Your task to perform on an android device: open app "Upside-Cash back on gas & food" (install if not already installed) and go to login screen Image 0: 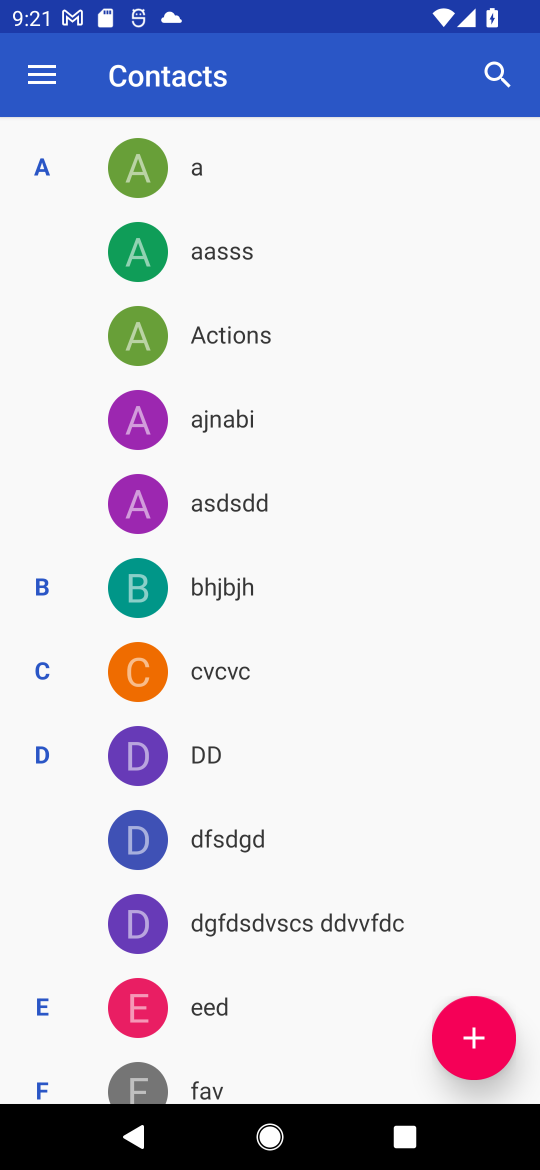
Step 0: press home button
Your task to perform on an android device: open app "Upside-Cash back on gas & food" (install if not already installed) and go to login screen Image 1: 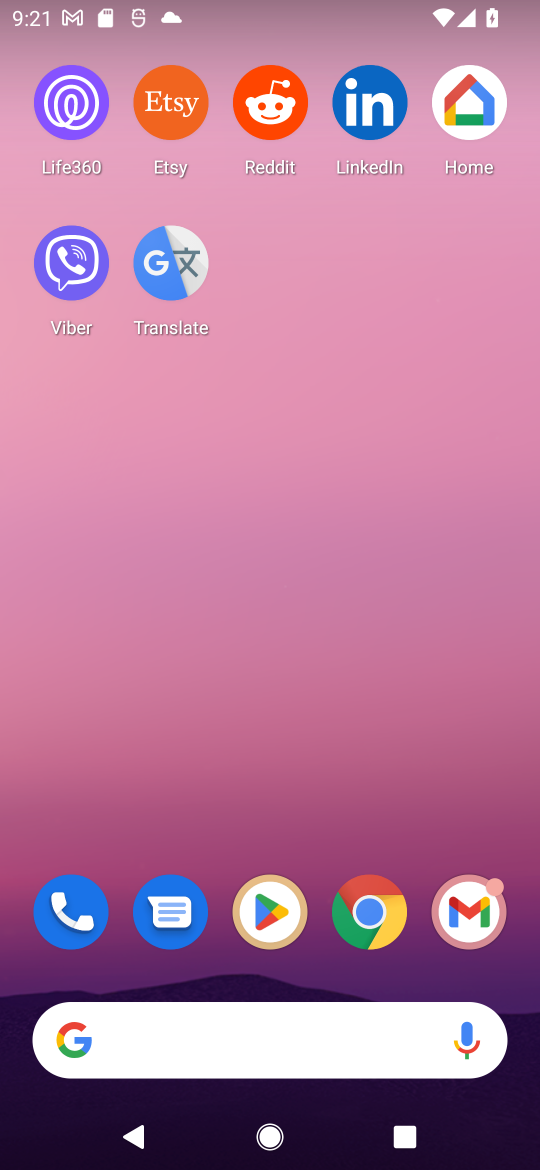
Step 1: drag from (479, 955) to (241, 6)
Your task to perform on an android device: open app "Upside-Cash back on gas & food" (install if not already installed) and go to login screen Image 2: 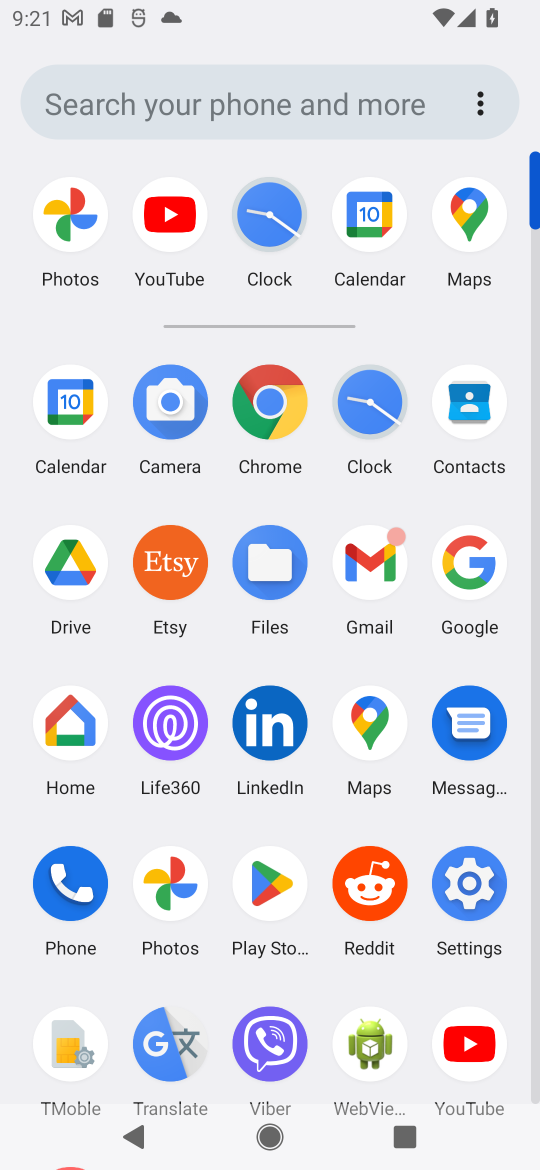
Step 2: click (263, 898)
Your task to perform on an android device: open app "Upside-Cash back on gas & food" (install if not already installed) and go to login screen Image 3: 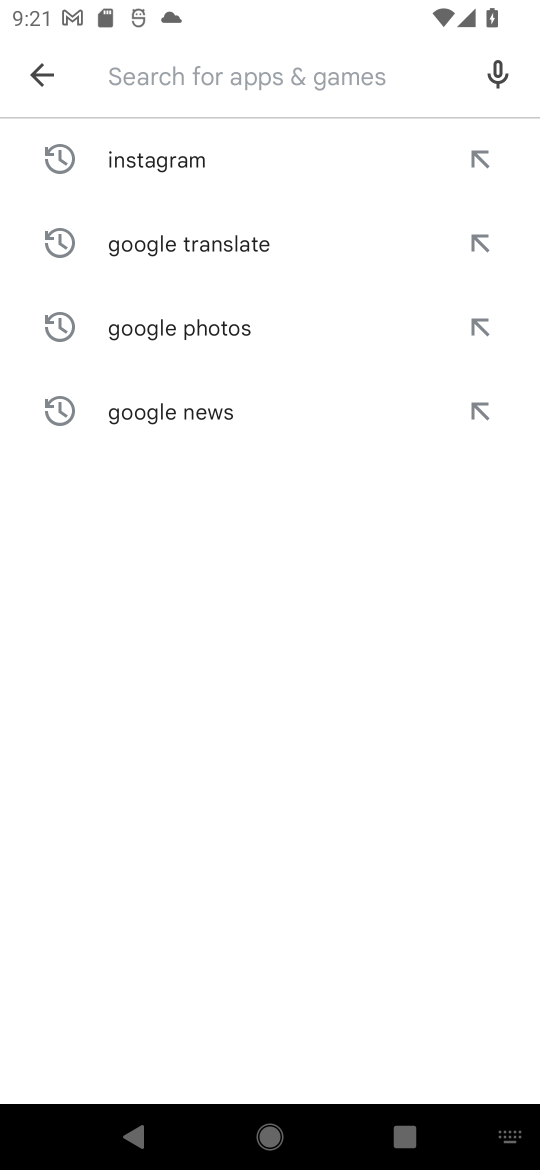
Step 3: type "Upside-Cash back on gas & food"
Your task to perform on an android device: open app "Upside-Cash back on gas & food" (install if not already installed) and go to login screen Image 4: 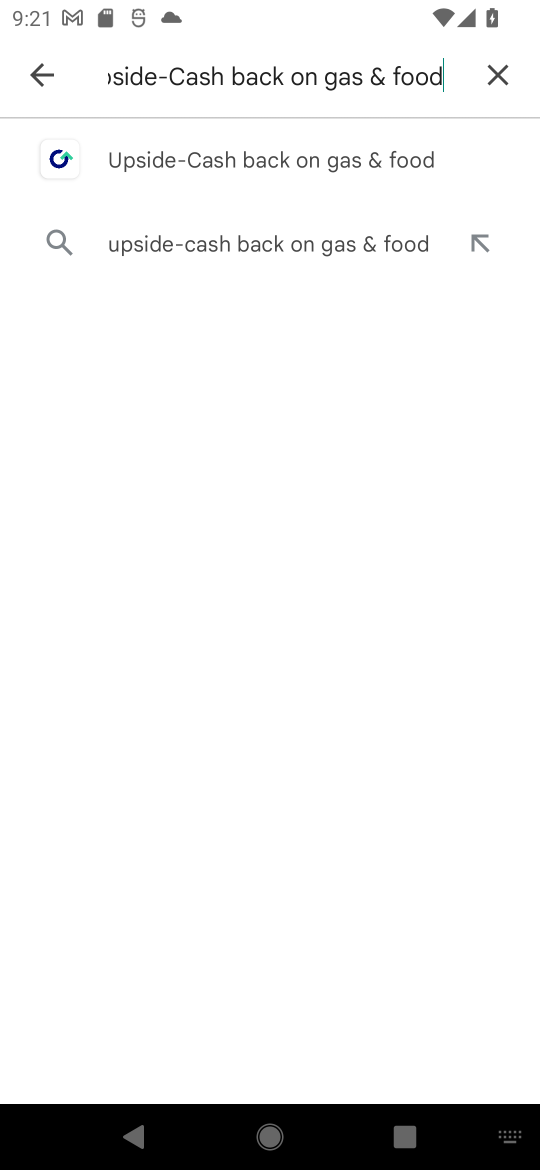
Step 4: click (221, 167)
Your task to perform on an android device: open app "Upside-Cash back on gas & food" (install if not already installed) and go to login screen Image 5: 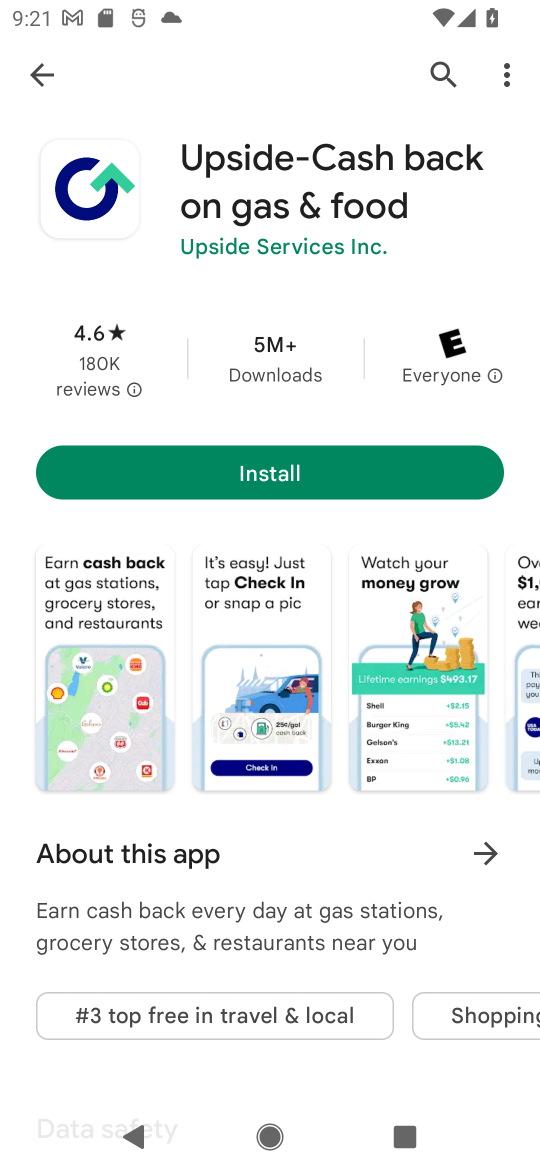
Step 5: task complete